Your task to perform on an android device: Open settings on Google Maps Image 0: 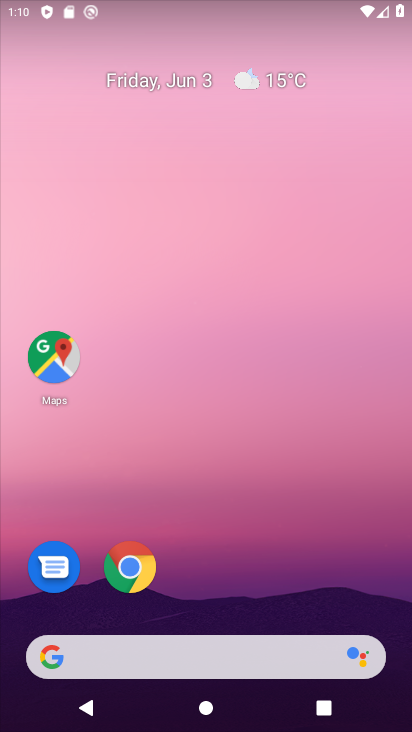
Step 0: drag from (251, 593) to (256, 65)
Your task to perform on an android device: Open settings on Google Maps Image 1: 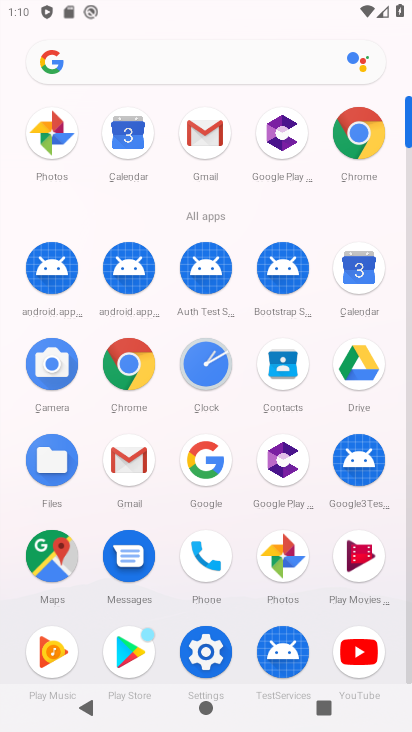
Step 1: click (46, 552)
Your task to perform on an android device: Open settings on Google Maps Image 2: 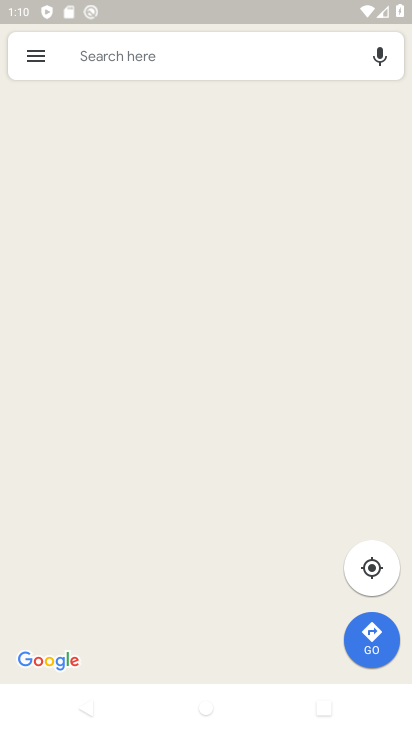
Step 2: click (30, 61)
Your task to perform on an android device: Open settings on Google Maps Image 3: 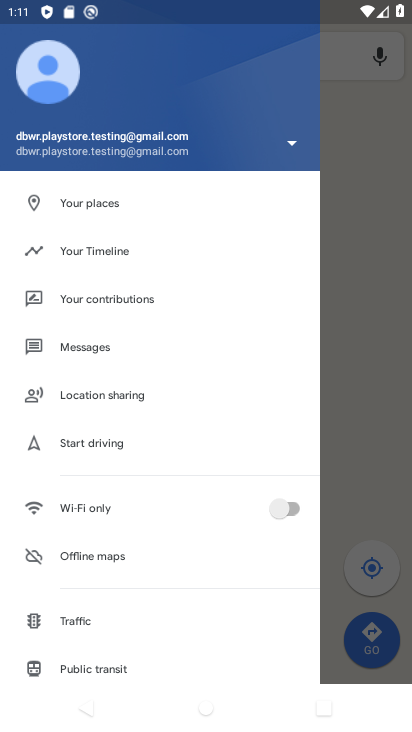
Step 3: drag from (105, 653) to (193, 270)
Your task to perform on an android device: Open settings on Google Maps Image 4: 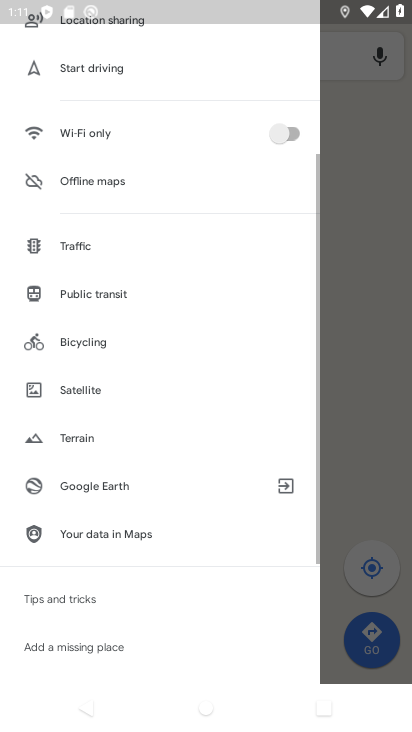
Step 4: drag from (215, 610) to (215, 237)
Your task to perform on an android device: Open settings on Google Maps Image 5: 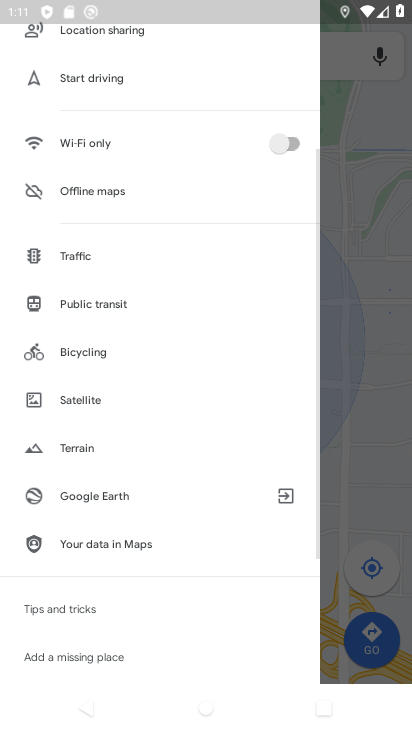
Step 5: drag from (145, 628) to (183, 319)
Your task to perform on an android device: Open settings on Google Maps Image 6: 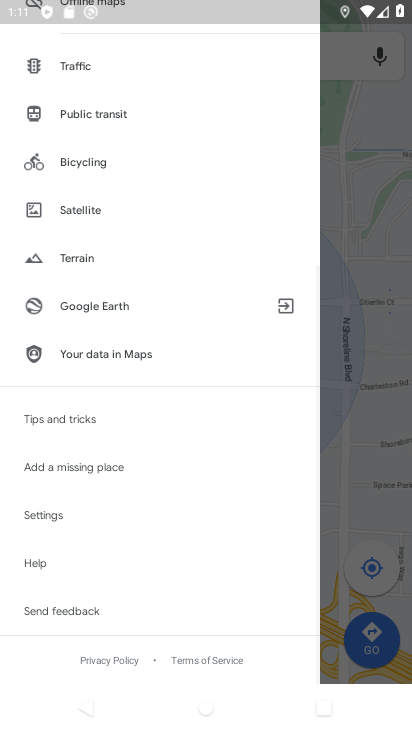
Step 6: click (36, 514)
Your task to perform on an android device: Open settings on Google Maps Image 7: 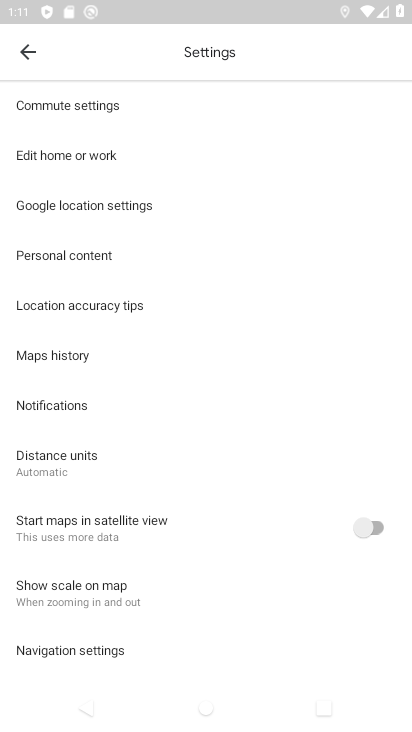
Step 7: task complete